Your task to perform on an android device: Show me productivity apps on the Play Store Image 0: 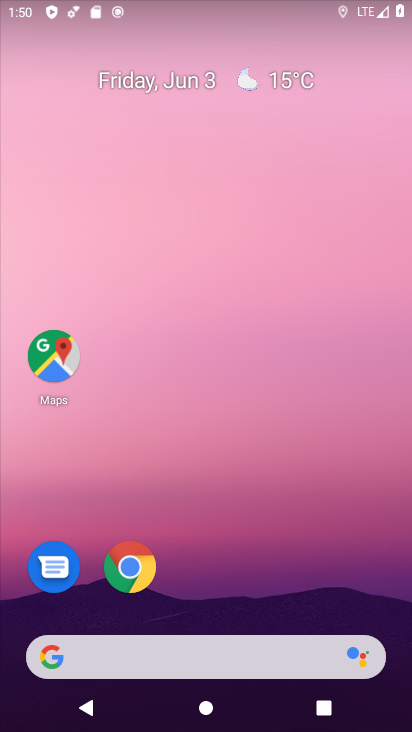
Step 0: drag from (193, 622) to (262, 81)
Your task to perform on an android device: Show me productivity apps on the Play Store Image 1: 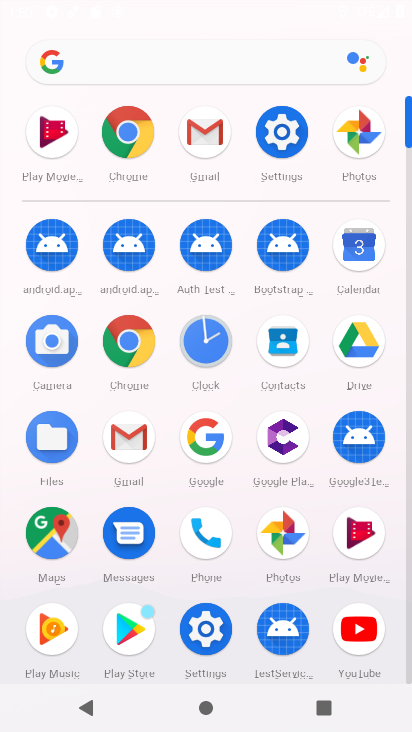
Step 1: click (129, 636)
Your task to perform on an android device: Show me productivity apps on the Play Store Image 2: 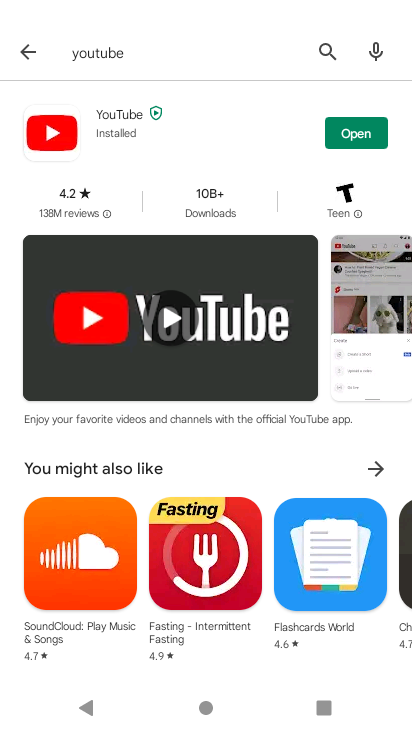
Step 2: click (22, 55)
Your task to perform on an android device: Show me productivity apps on the Play Store Image 3: 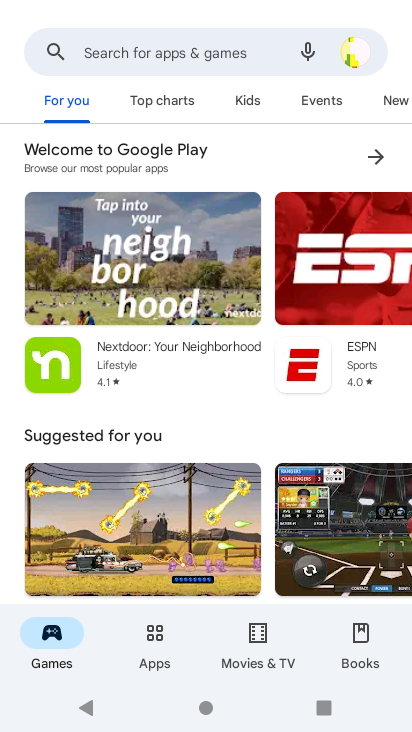
Step 3: click (153, 635)
Your task to perform on an android device: Show me productivity apps on the Play Store Image 4: 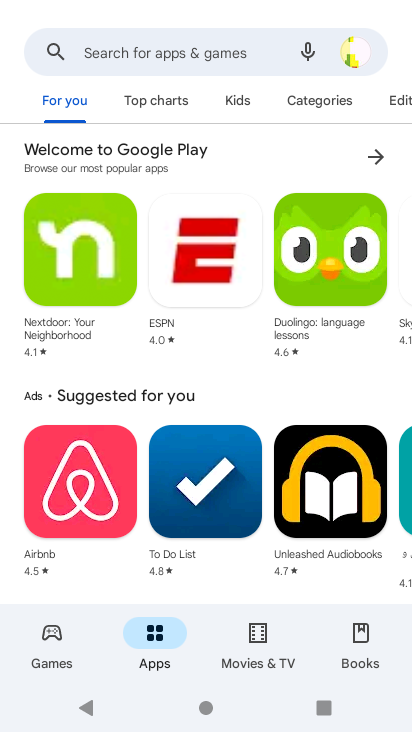
Step 4: click (153, 635)
Your task to perform on an android device: Show me productivity apps on the Play Store Image 5: 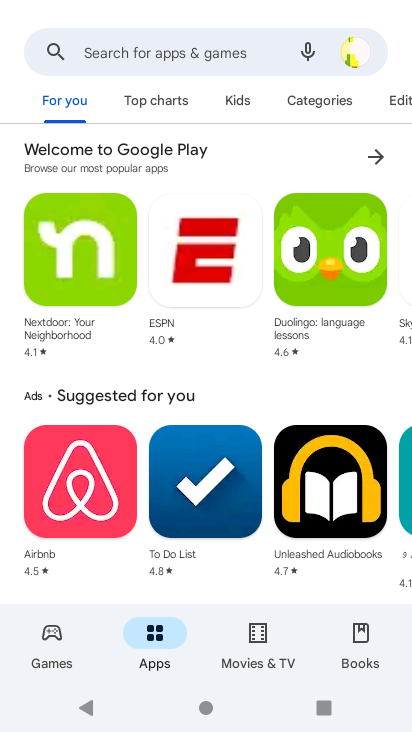
Step 5: task complete